Your task to perform on an android device: Is it going to rain tomorrow? Image 0: 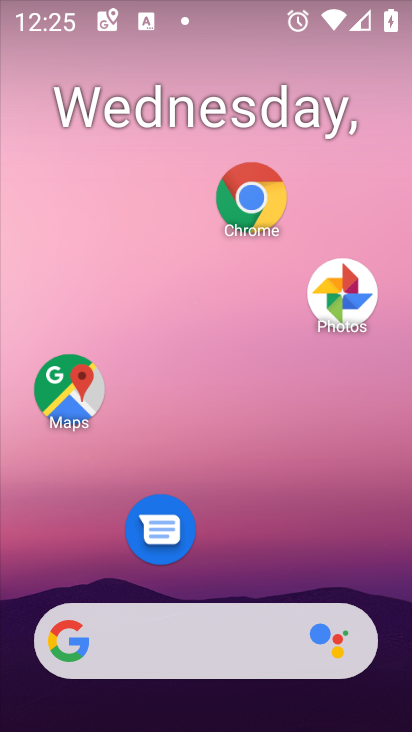
Step 0: drag from (218, 538) to (230, 148)
Your task to perform on an android device: Is it going to rain tomorrow? Image 1: 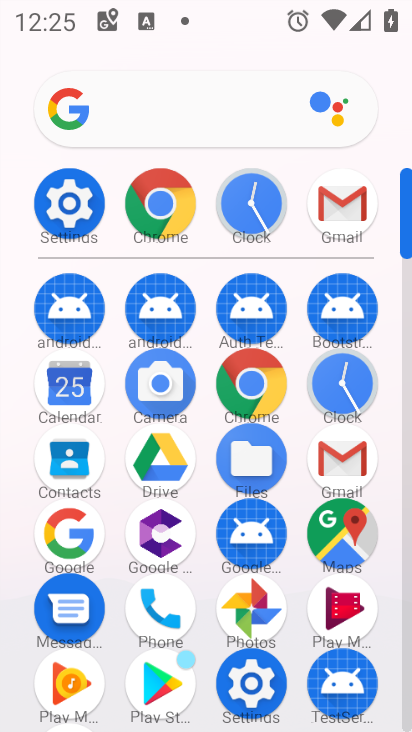
Step 1: click (53, 542)
Your task to perform on an android device: Is it going to rain tomorrow? Image 2: 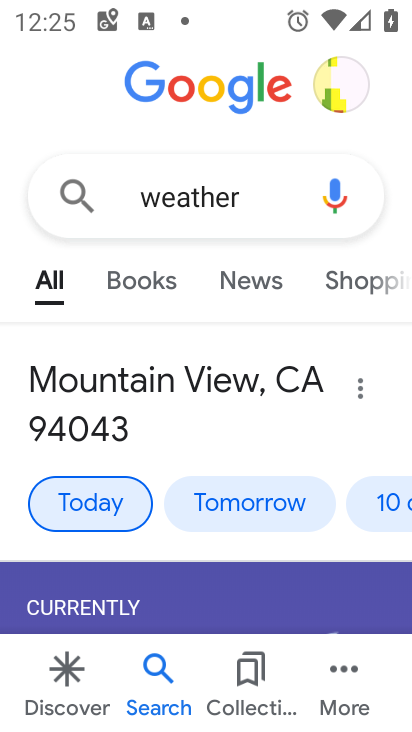
Step 2: click (240, 501)
Your task to perform on an android device: Is it going to rain tomorrow? Image 3: 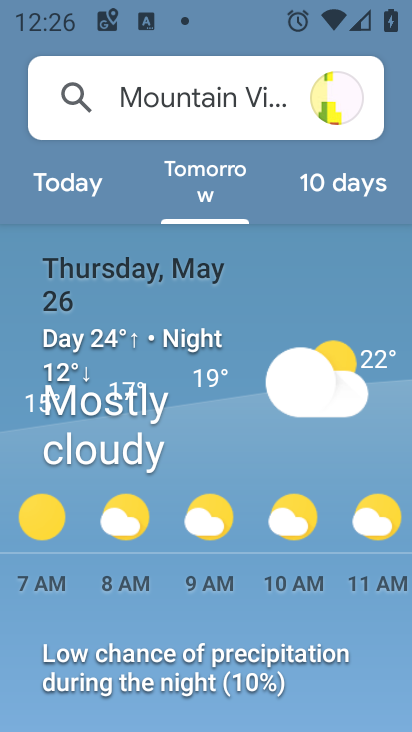
Step 3: task complete